Your task to perform on an android device: Set the phone to "Do not disturb". Image 0: 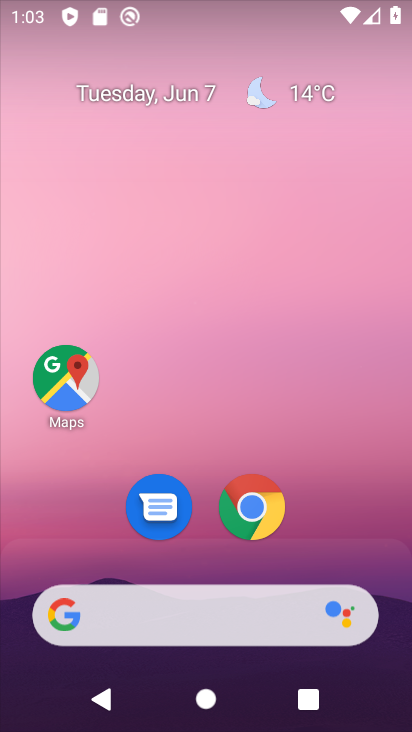
Step 0: drag from (310, 509) to (304, 12)
Your task to perform on an android device: Set the phone to "Do not disturb". Image 1: 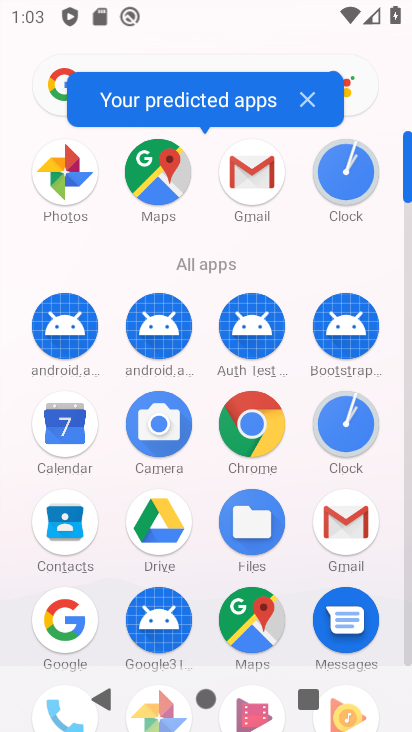
Step 1: drag from (209, 467) to (204, 64)
Your task to perform on an android device: Set the phone to "Do not disturb". Image 2: 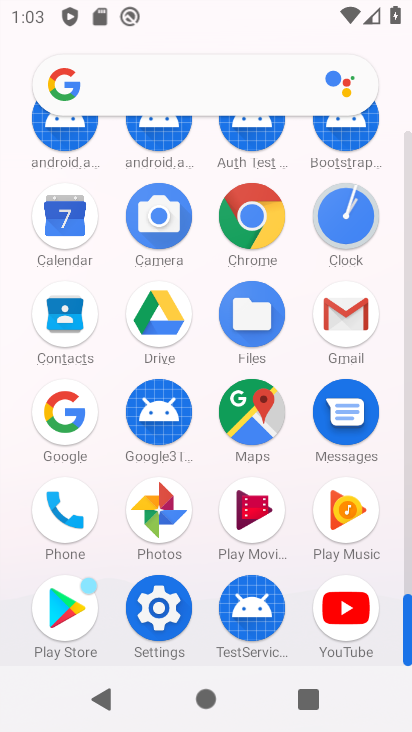
Step 2: click (153, 597)
Your task to perform on an android device: Set the phone to "Do not disturb". Image 3: 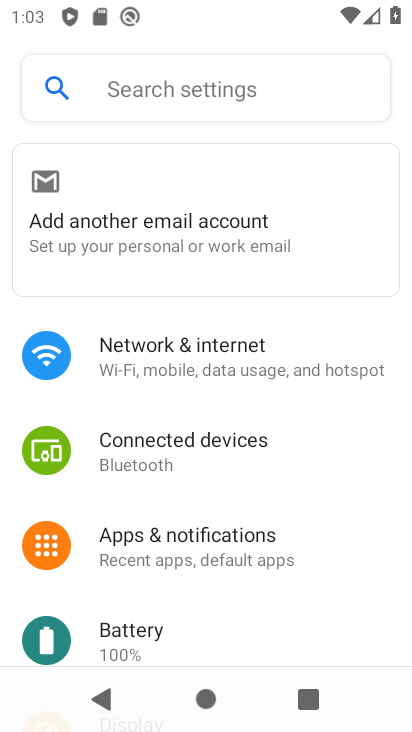
Step 3: drag from (199, 591) to (203, 41)
Your task to perform on an android device: Set the phone to "Do not disturb". Image 4: 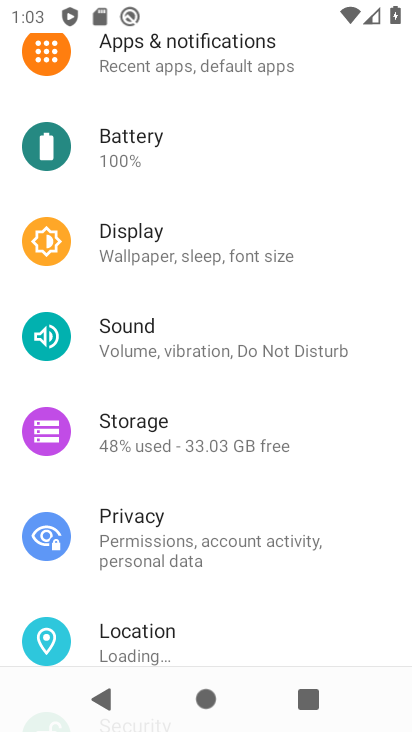
Step 4: click (240, 356)
Your task to perform on an android device: Set the phone to "Do not disturb". Image 5: 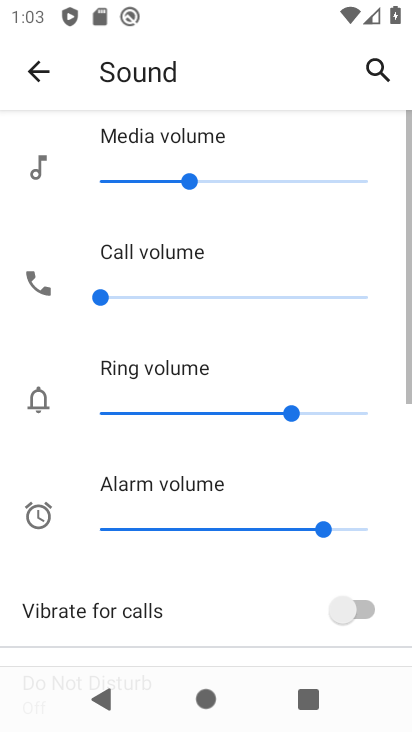
Step 5: drag from (178, 571) to (177, 48)
Your task to perform on an android device: Set the phone to "Do not disturb". Image 6: 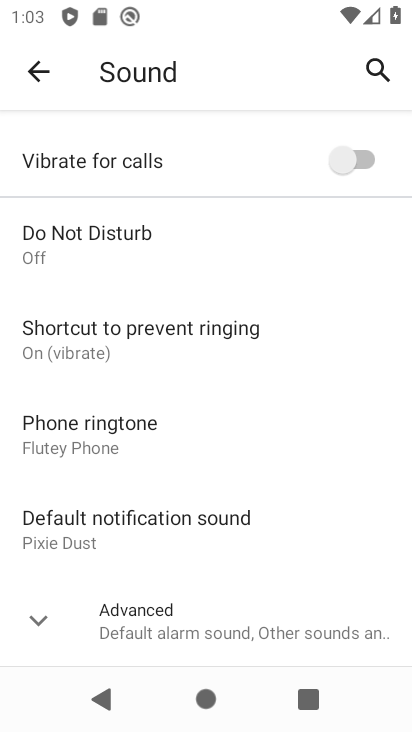
Step 6: click (110, 256)
Your task to perform on an android device: Set the phone to "Do not disturb". Image 7: 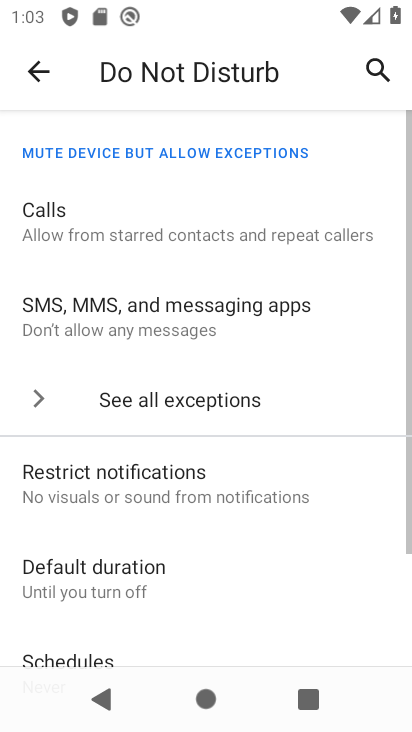
Step 7: drag from (168, 616) to (164, 166)
Your task to perform on an android device: Set the phone to "Do not disturb". Image 8: 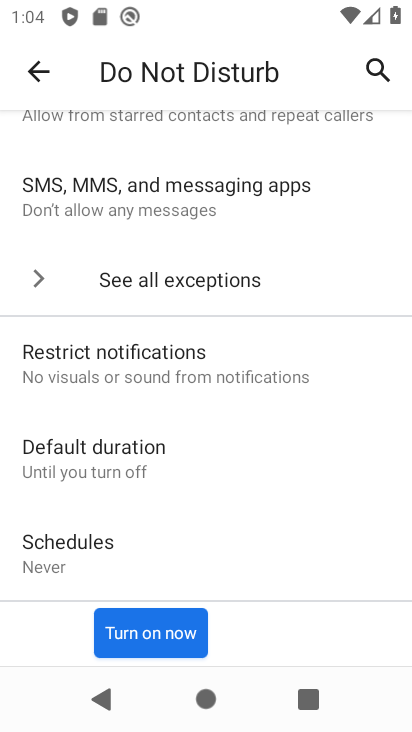
Step 8: click (145, 638)
Your task to perform on an android device: Set the phone to "Do not disturb". Image 9: 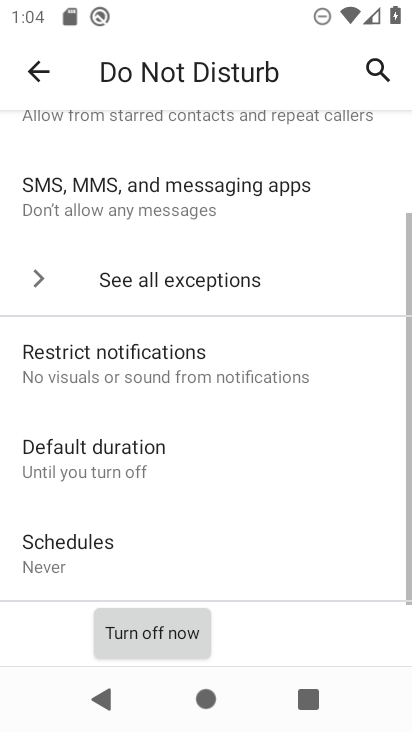
Step 9: task complete